Your task to perform on an android device: Open the web browser Image 0: 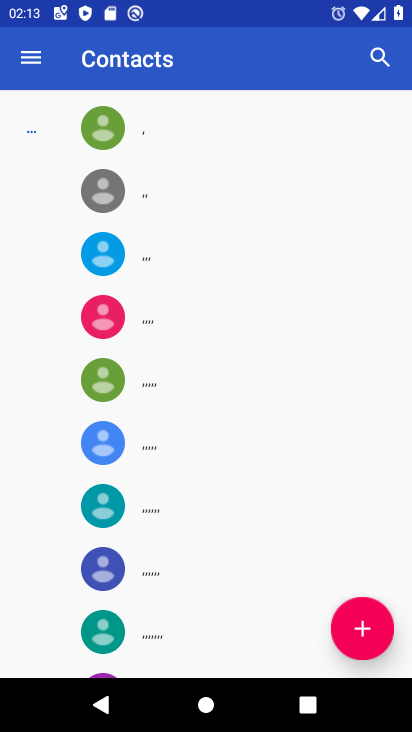
Step 0: press home button
Your task to perform on an android device: Open the web browser Image 1: 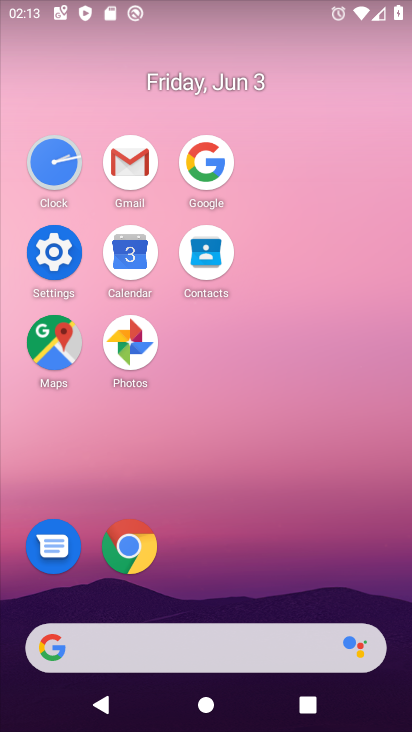
Step 1: click (133, 558)
Your task to perform on an android device: Open the web browser Image 2: 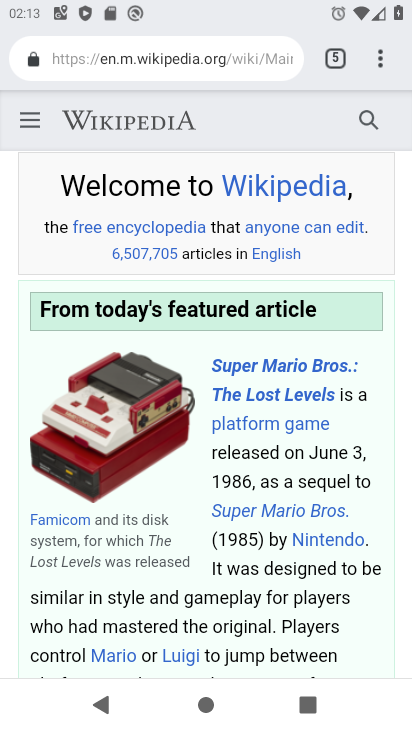
Step 2: task complete